Your task to perform on an android device: delete location history Image 0: 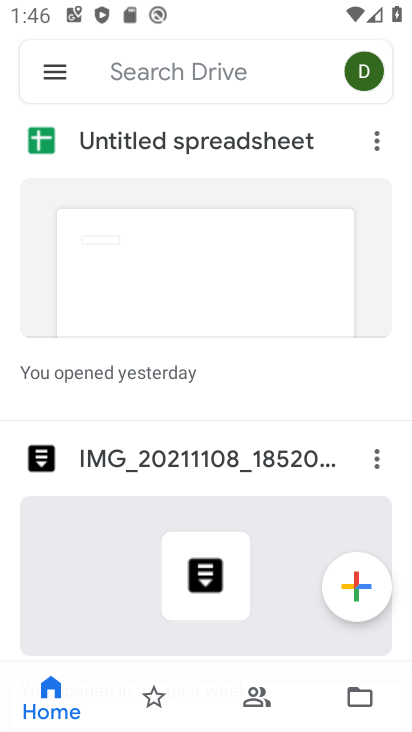
Step 0: press home button
Your task to perform on an android device: delete location history Image 1: 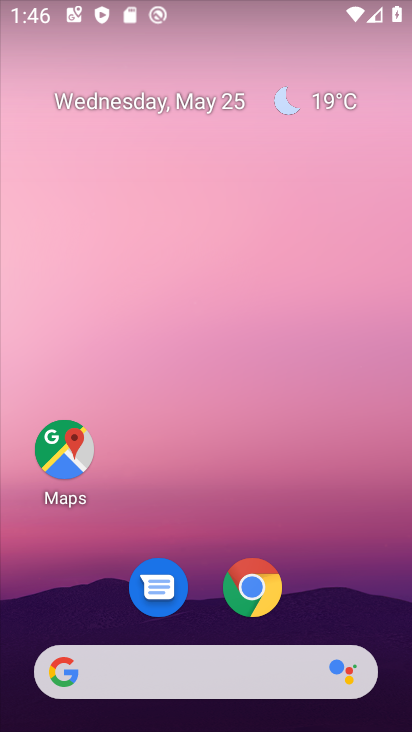
Step 1: drag from (188, 616) to (207, 156)
Your task to perform on an android device: delete location history Image 2: 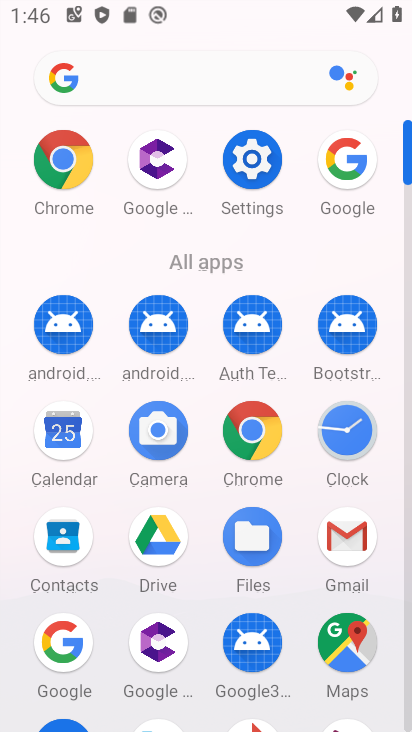
Step 2: click (243, 162)
Your task to perform on an android device: delete location history Image 3: 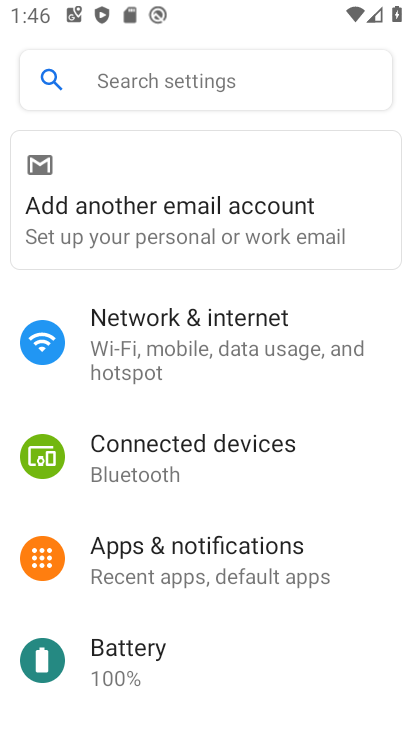
Step 3: drag from (249, 639) to (284, 128)
Your task to perform on an android device: delete location history Image 4: 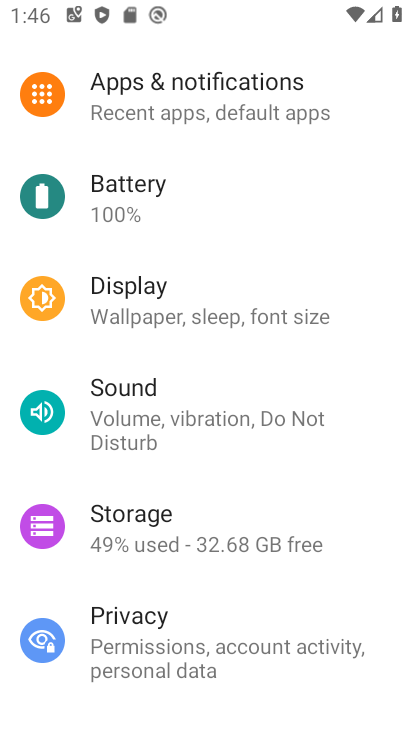
Step 4: drag from (233, 656) to (271, 176)
Your task to perform on an android device: delete location history Image 5: 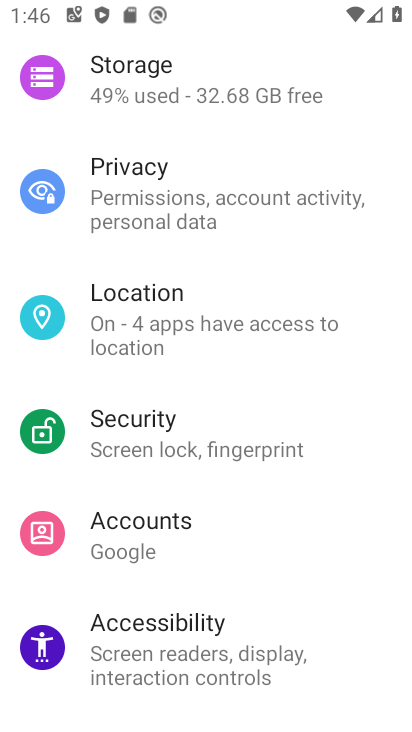
Step 5: click (129, 317)
Your task to perform on an android device: delete location history Image 6: 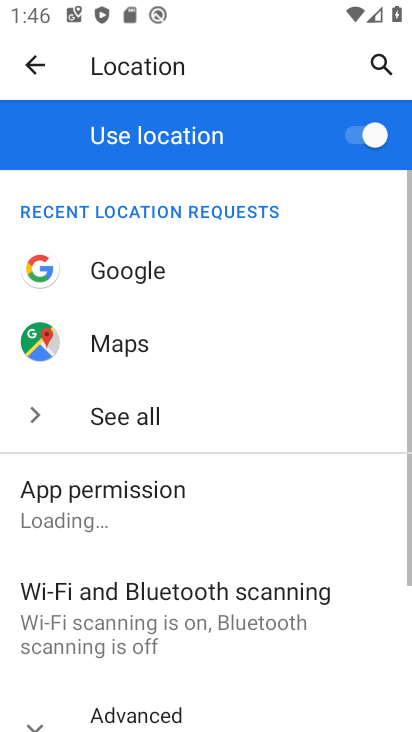
Step 6: drag from (303, 635) to (301, 155)
Your task to perform on an android device: delete location history Image 7: 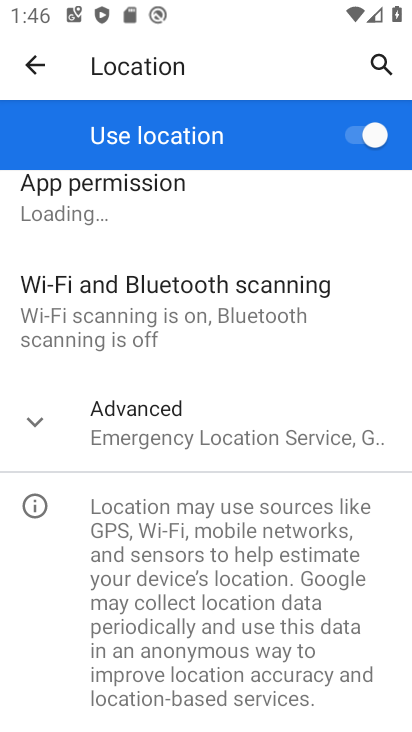
Step 7: click (171, 430)
Your task to perform on an android device: delete location history Image 8: 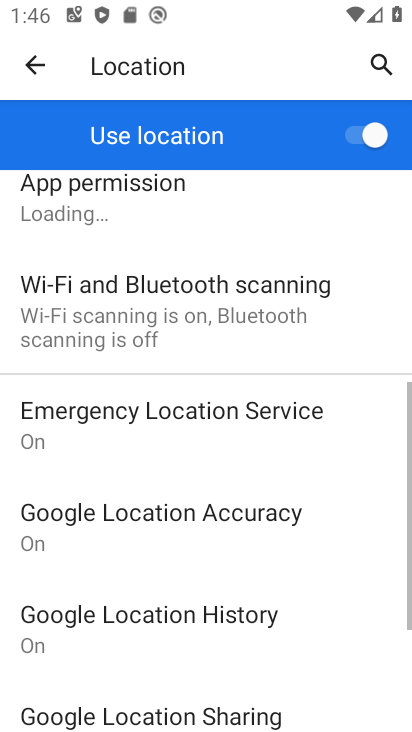
Step 8: drag from (316, 587) to (289, 334)
Your task to perform on an android device: delete location history Image 9: 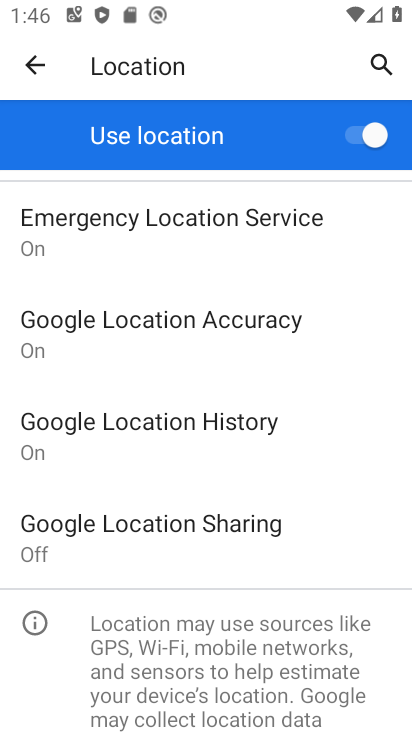
Step 9: click (147, 434)
Your task to perform on an android device: delete location history Image 10: 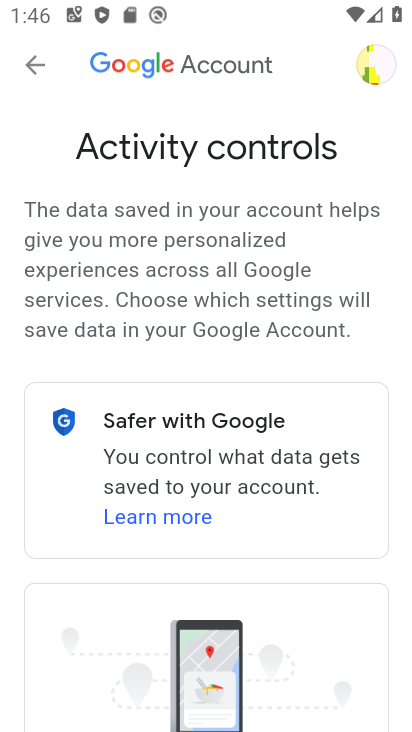
Step 10: drag from (247, 571) to (316, 33)
Your task to perform on an android device: delete location history Image 11: 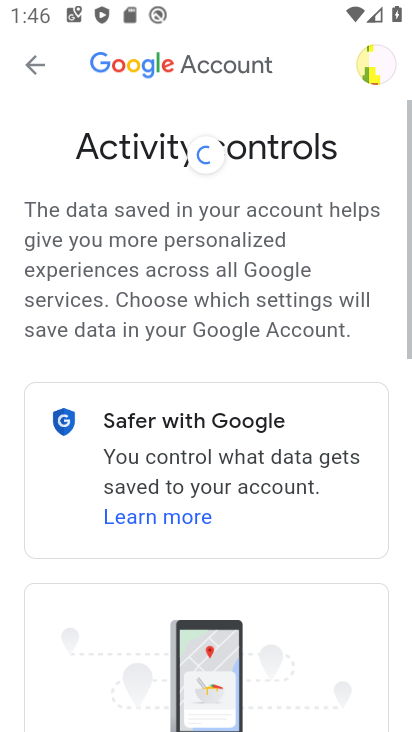
Step 11: drag from (241, 697) to (288, 229)
Your task to perform on an android device: delete location history Image 12: 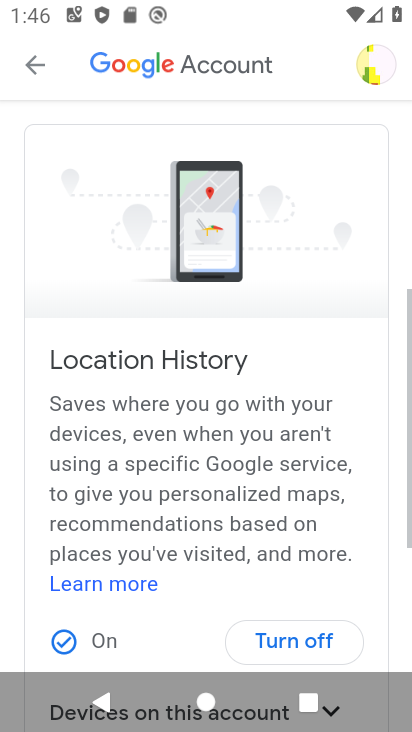
Step 12: drag from (210, 650) to (209, 357)
Your task to perform on an android device: delete location history Image 13: 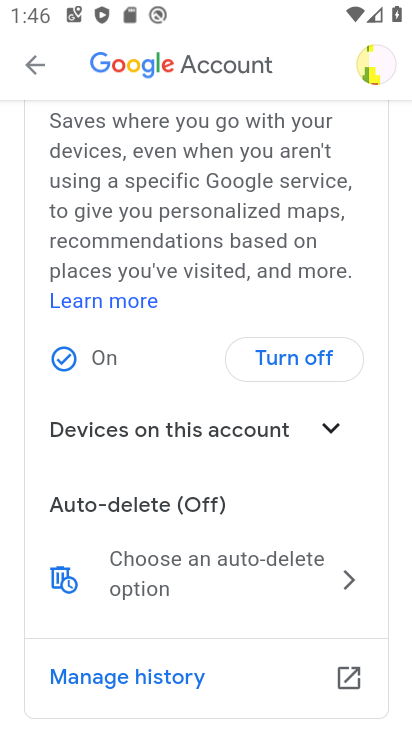
Step 13: click (64, 581)
Your task to perform on an android device: delete location history Image 14: 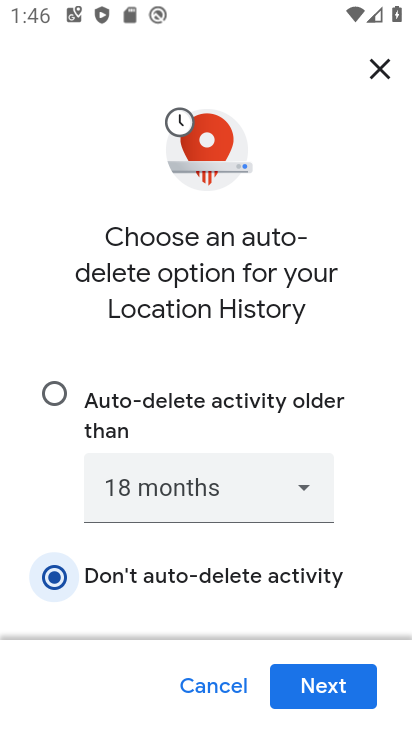
Step 14: click (327, 689)
Your task to perform on an android device: delete location history Image 15: 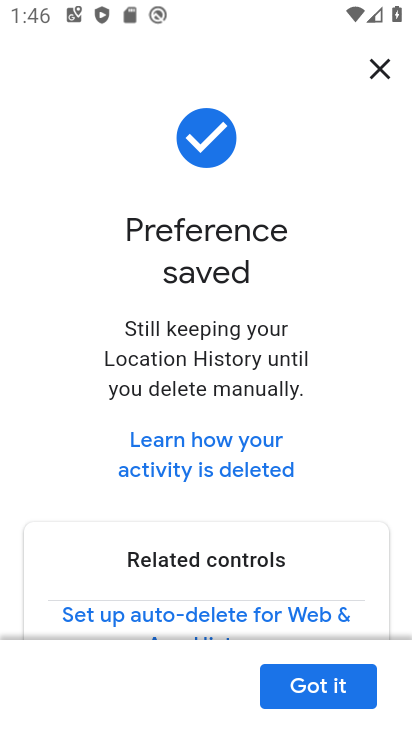
Step 15: click (328, 689)
Your task to perform on an android device: delete location history Image 16: 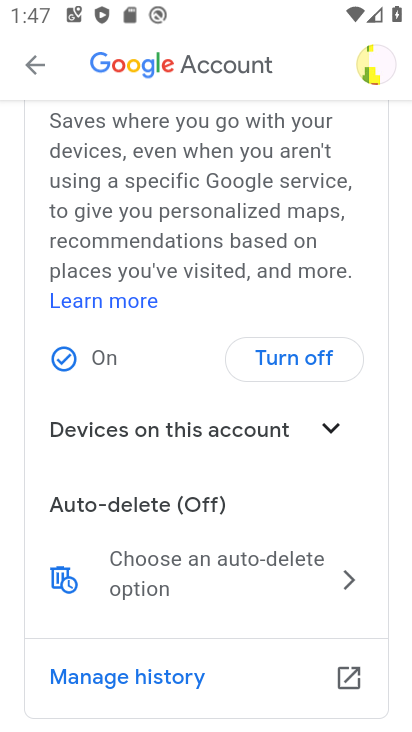
Step 16: task complete